Your task to perform on an android device: Search for Italian restaurants on Maps Image 0: 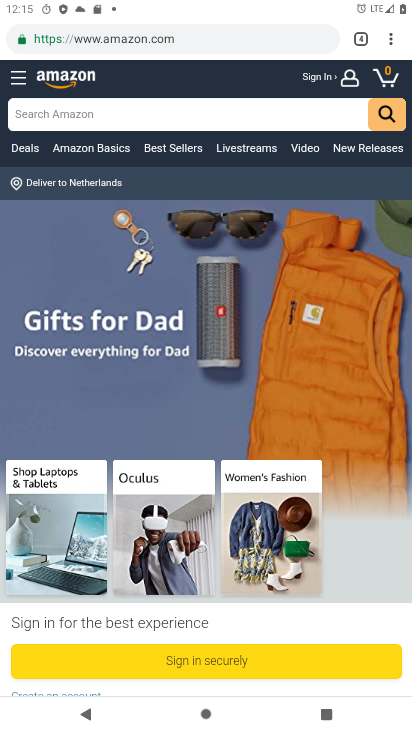
Step 0: press home button
Your task to perform on an android device: Search for Italian restaurants on Maps Image 1: 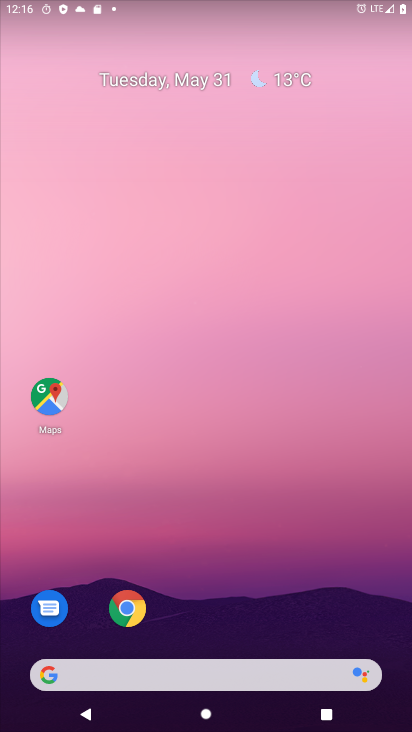
Step 1: click (51, 399)
Your task to perform on an android device: Search for Italian restaurants on Maps Image 2: 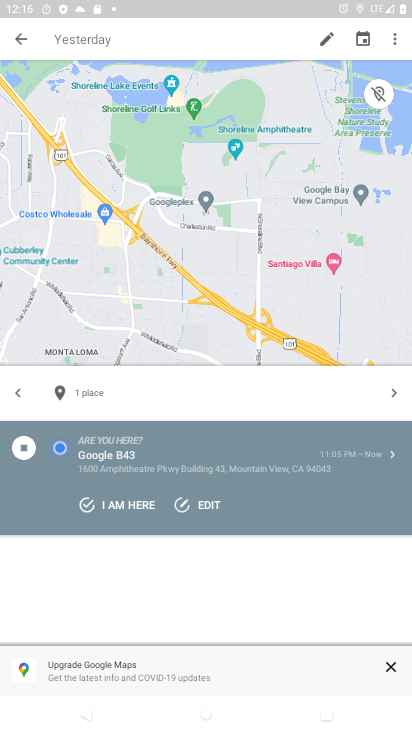
Step 2: click (20, 43)
Your task to perform on an android device: Search for Italian restaurants on Maps Image 3: 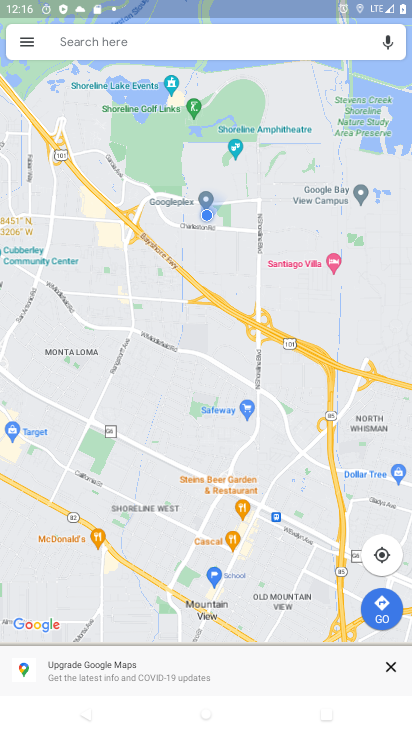
Step 3: click (62, 41)
Your task to perform on an android device: Search for Italian restaurants on Maps Image 4: 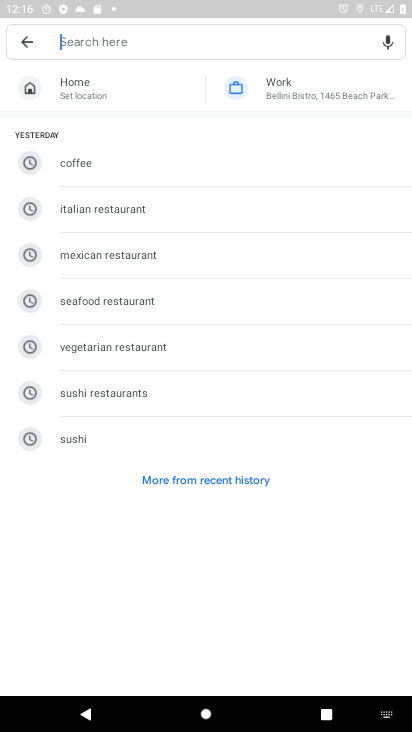
Step 4: type "italian restaurants "
Your task to perform on an android device: Search for Italian restaurants on Maps Image 5: 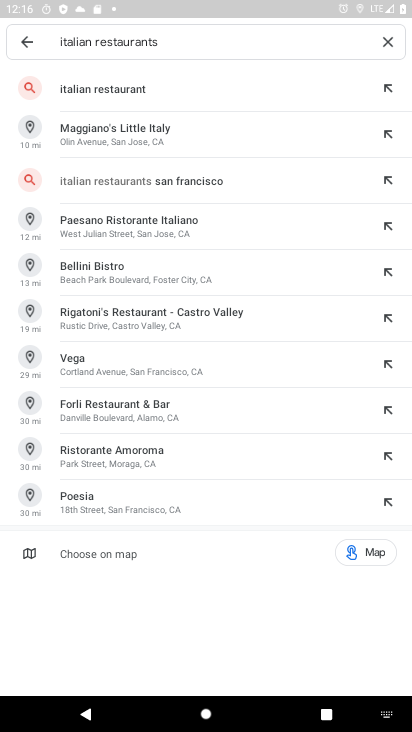
Step 5: click (86, 94)
Your task to perform on an android device: Search for Italian restaurants on Maps Image 6: 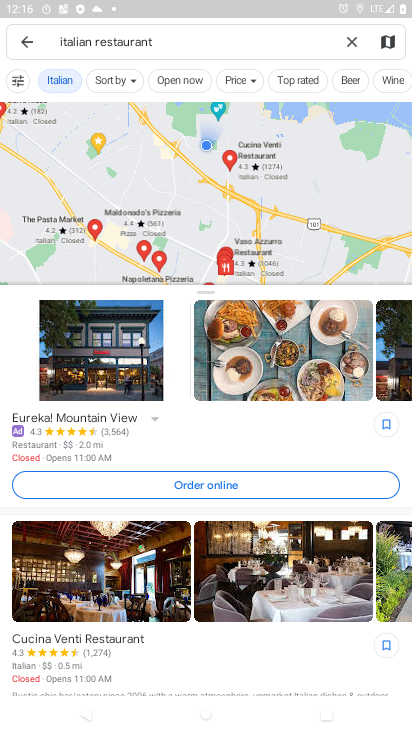
Step 6: task complete